Your task to perform on an android device: toggle pop-ups in chrome Image 0: 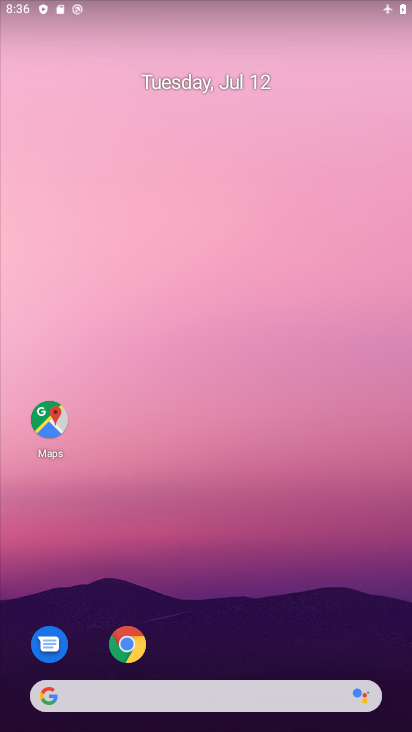
Step 0: click (113, 630)
Your task to perform on an android device: toggle pop-ups in chrome Image 1: 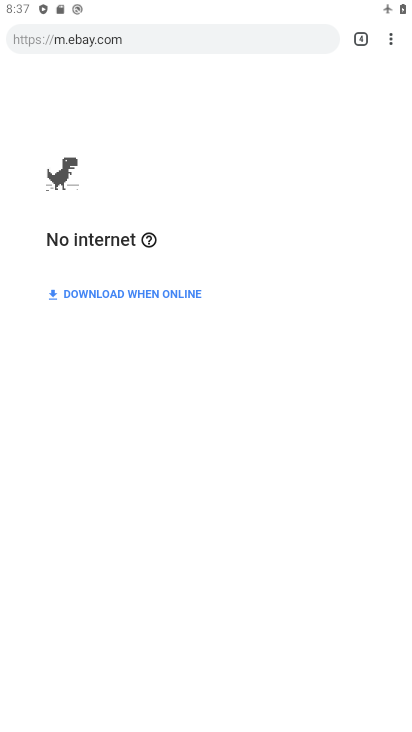
Step 1: click (389, 42)
Your task to perform on an android device: toggle pop-ups in chrome Image 2: 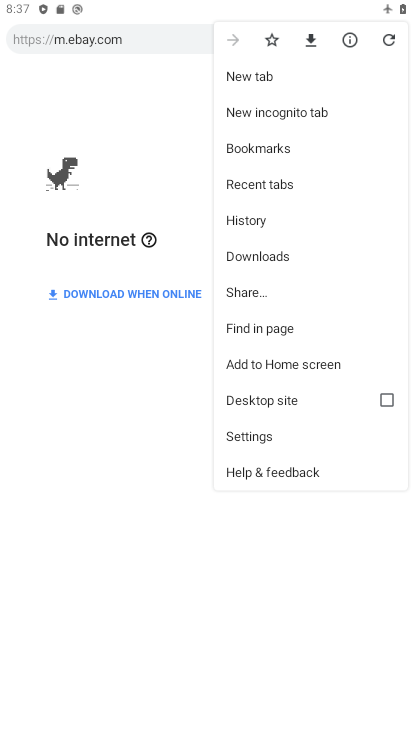
Step 2: click (260, 430)
Your task to perform on an android device: toggle pop-ups in chrome Image 3: 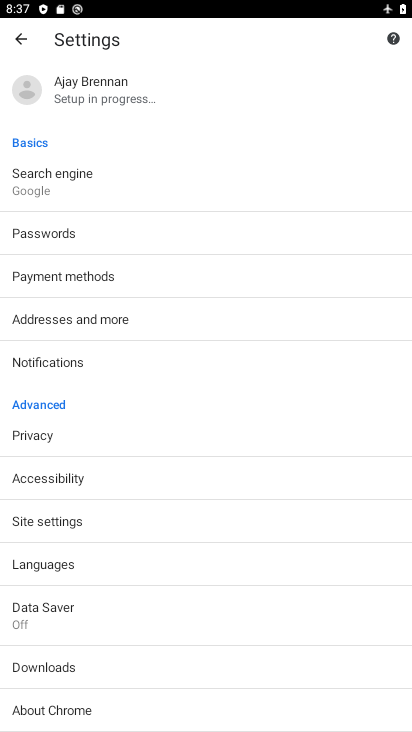
Step 3: click (96, 527)
Your task to perform on an android device: toggle pop-ups in chrome Image 4: 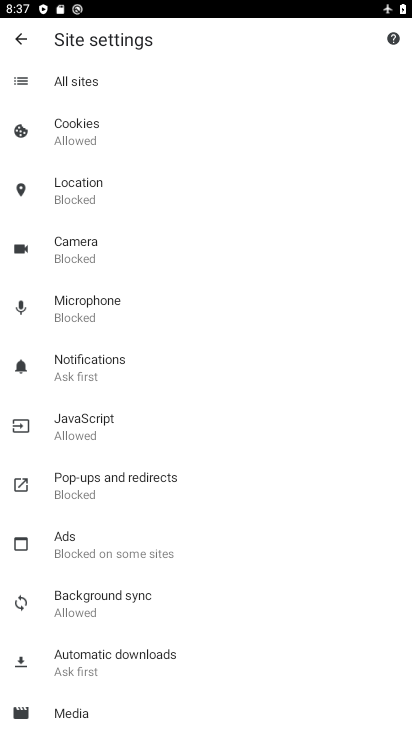
Step 4: click (156, 470)
Your task to perform on an android device: toggle pop-ups in chrome Image 5: 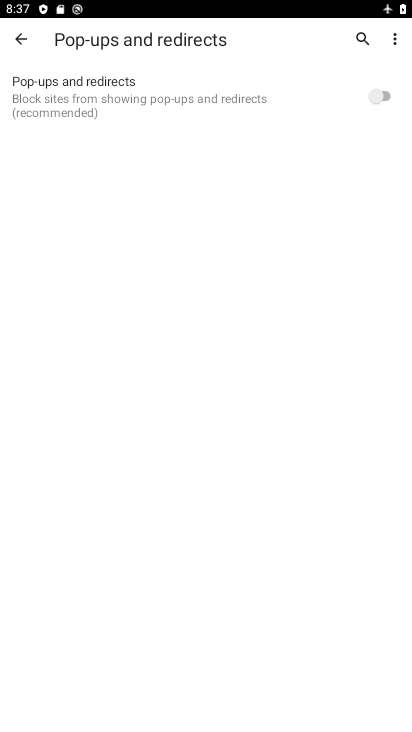
Step 5: click (396, 86)
Your task to perform on an android device: toggle pop-ups in chrome Image 6: 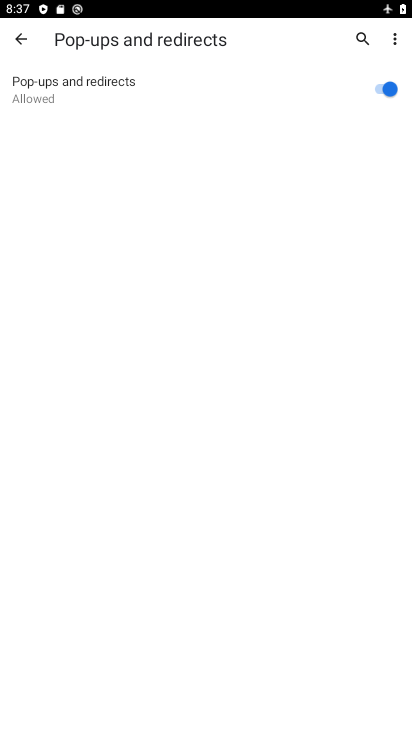
Step 6: task complete